Your task to perform on an android device: Open eBay Image 0: 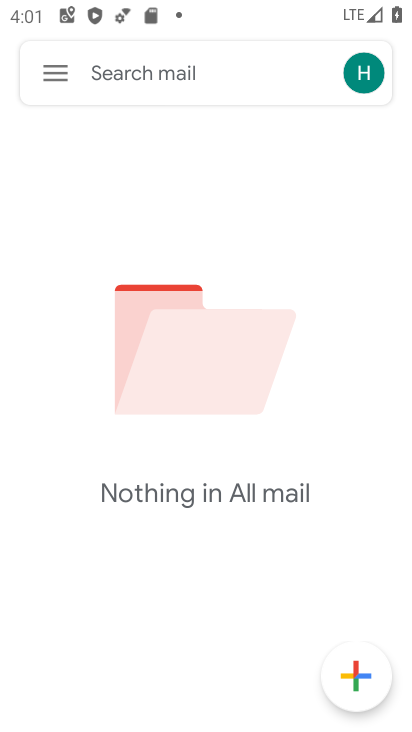
Step 0: press home button
Your task to perform on an android device: Open eBay Image 1: 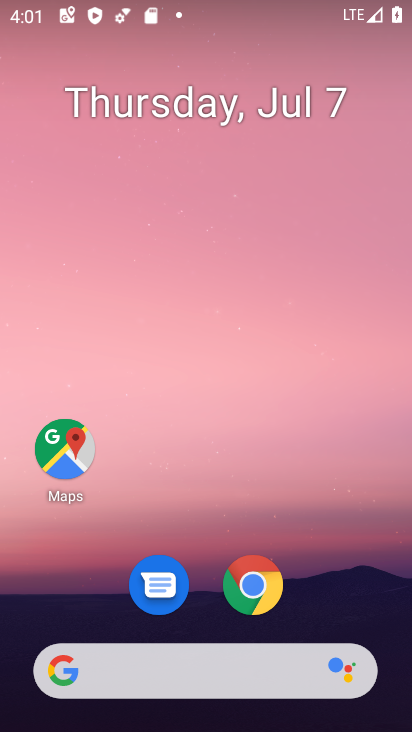
Step 1: click (159, 678)
Your task to perform on an android device: Open eBay Image 2: 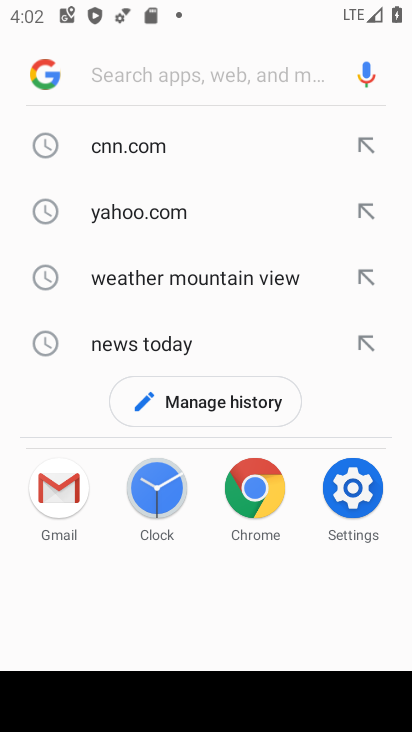
Step 2: type "ebay"
Your task to perform on an android device: Open eBay Image 3: 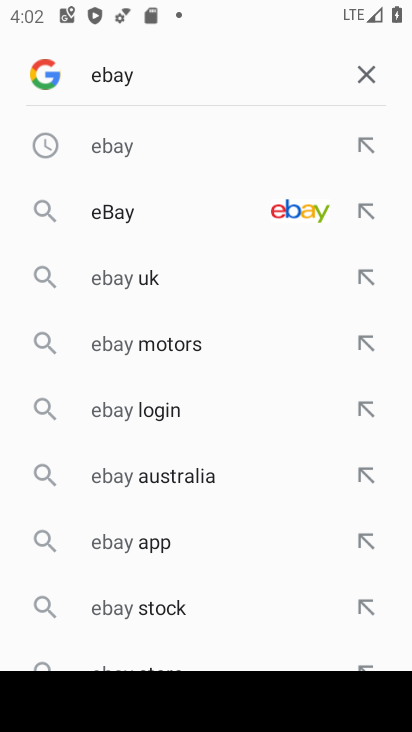
Step 3: click (296, 197)
Your task to perform on an android device: Open eBay Image 4: 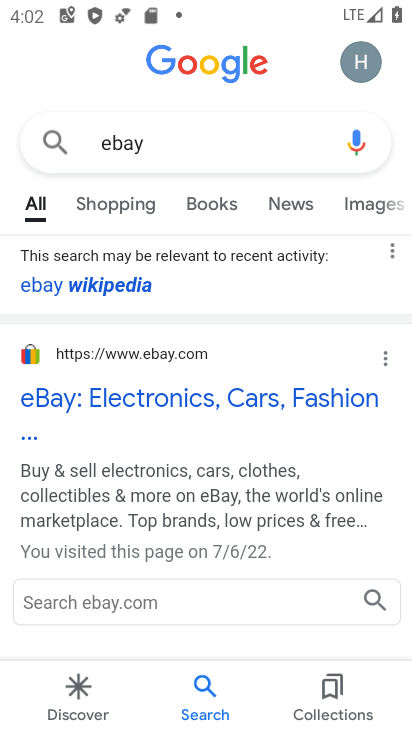
Step 4: click (46, 387)
Your task to perform on an android device: Open eBay Image 5: 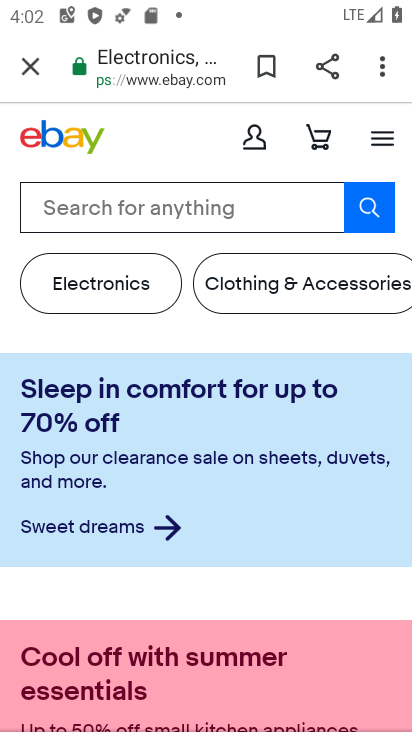
Step 5: task complete